Your task to perform on an android device: Open the map Image 0: 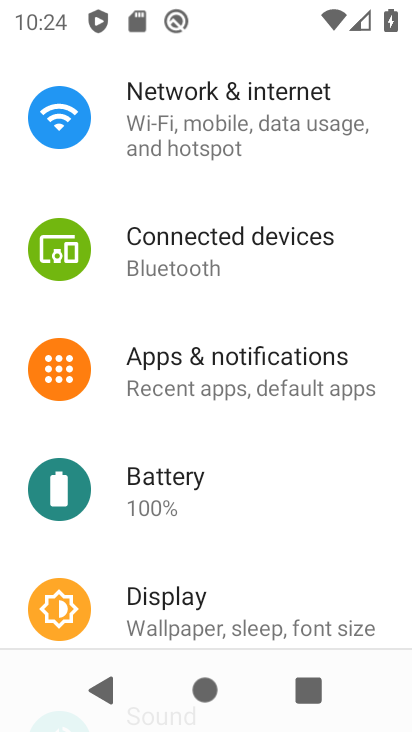
Step 0: press home button
Your task to perform on an android device: Open the map Image 1: 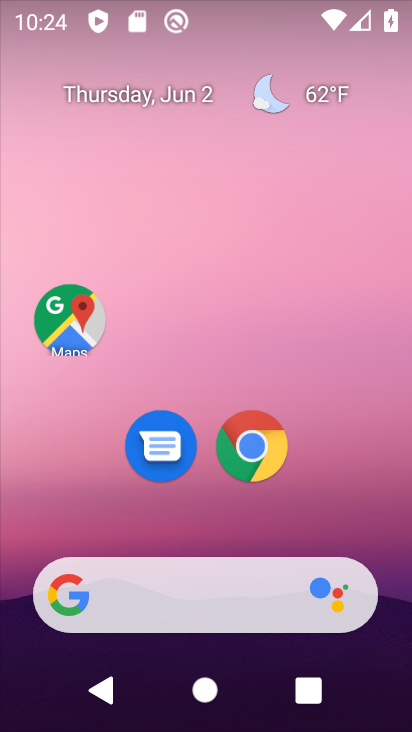
Step 1: click (68, 315)
Your task to perform on an android device: Open the map Image 2: 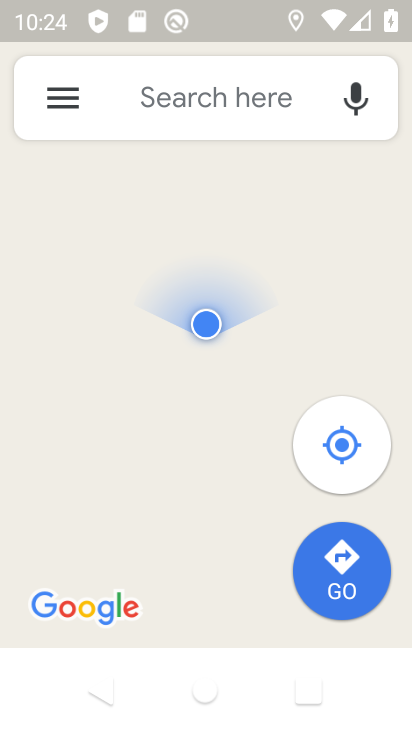
Step 2: task complete